Your task to perform on an android device: Is it going to rain tomorrow? Image 0: 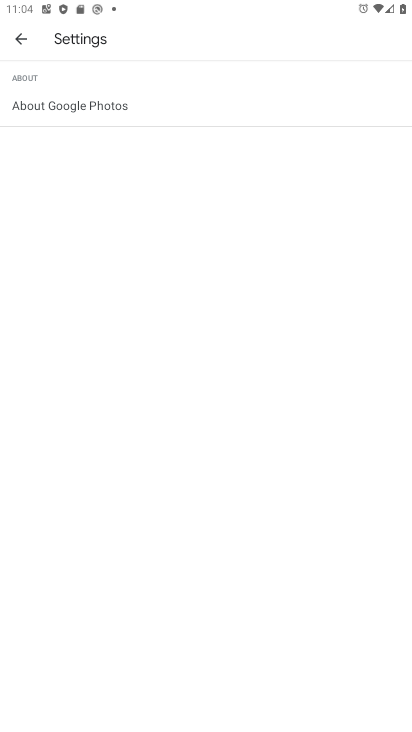
Step 0: press home button
Your task to perform on an android device: Is it going to rain tomorrow? Image 1: 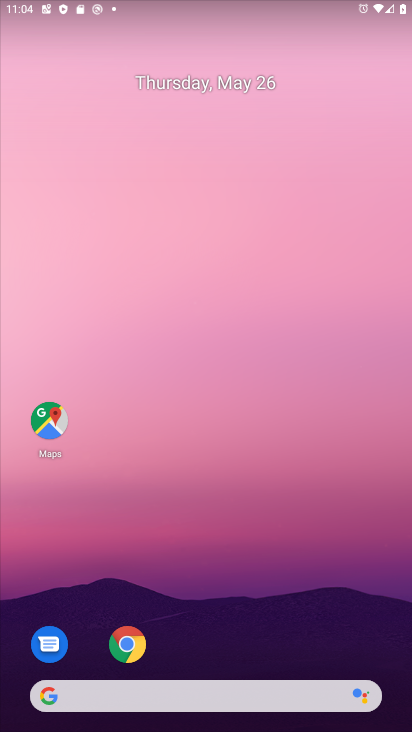
Step 1: drag from (216, 644) to (216, 249)
Your task to perform on an android device: Is it going to rain tomorrow? Image 2: 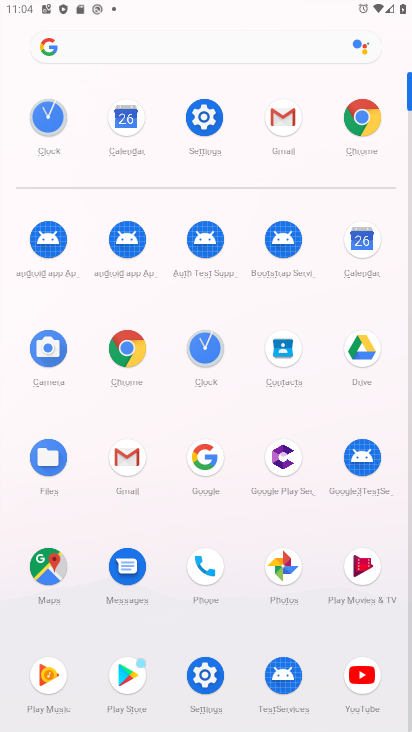
Step 2: click (200, 449)
Your task to perform on an android device: Is it going to rain tomorrow? Image 3: 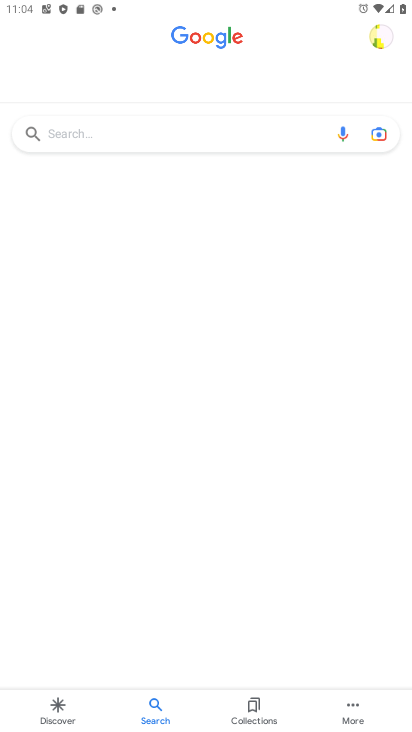
Step 3: click (185, 139)
Your task to perform on an android device: Is it going to rain tomorrow? Image 4: 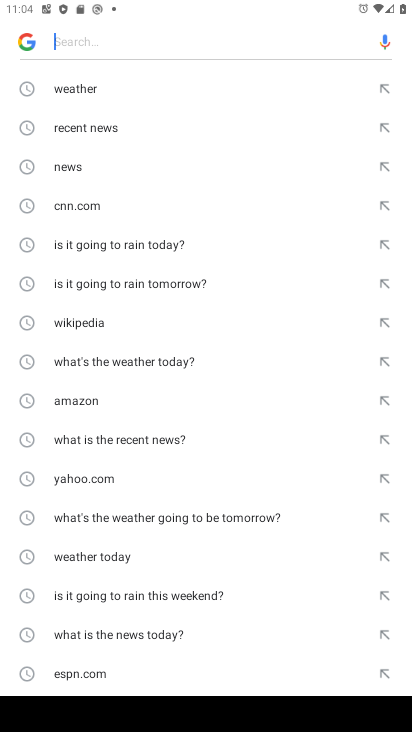
Step 4: click (83, 92)
Your task to perform on an android device: Is it going to rain tomorrow? Image 5: 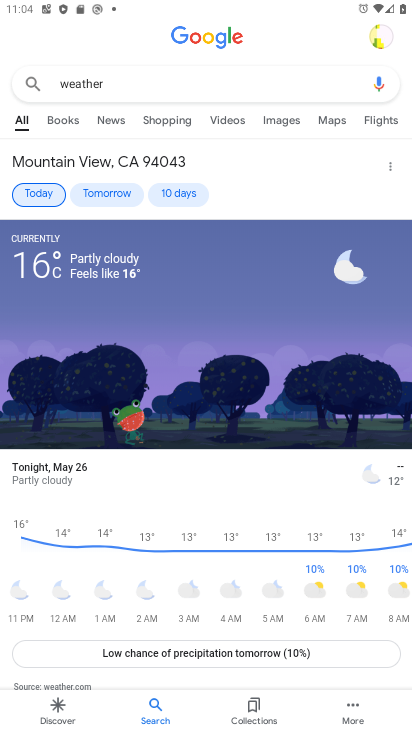
Step 5: click (109, 185)
Your task to perform on an android device: Is it going to rain tomorrow? Image 6: 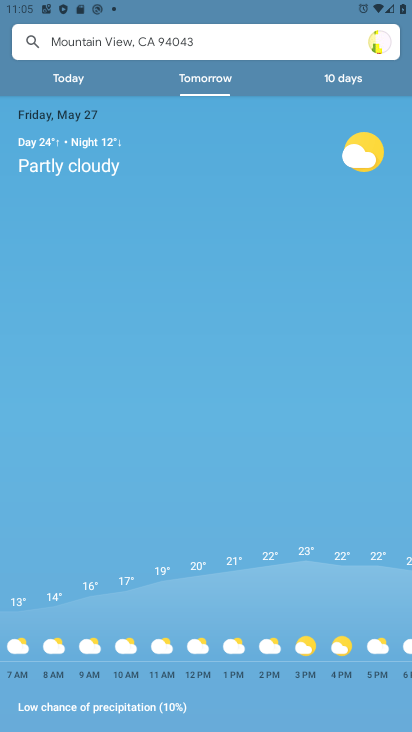
Step 6: task complete